Your task to perform on an android device: Go to location settings Image 0: 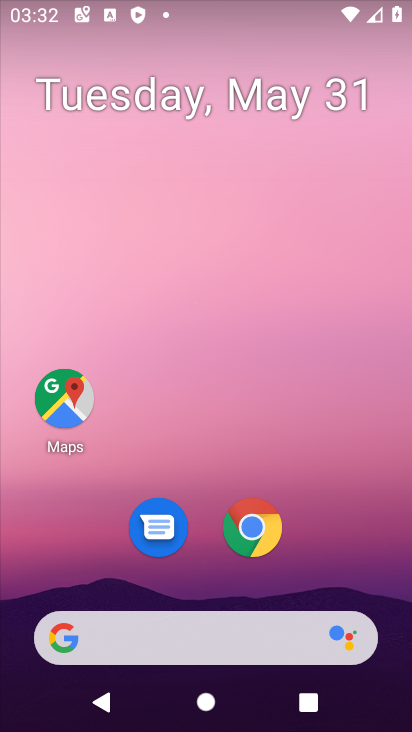
Step 0: drag from (397, 646) to (323, 153)
Your task to perform on an android device: Go to location settings Image 1: 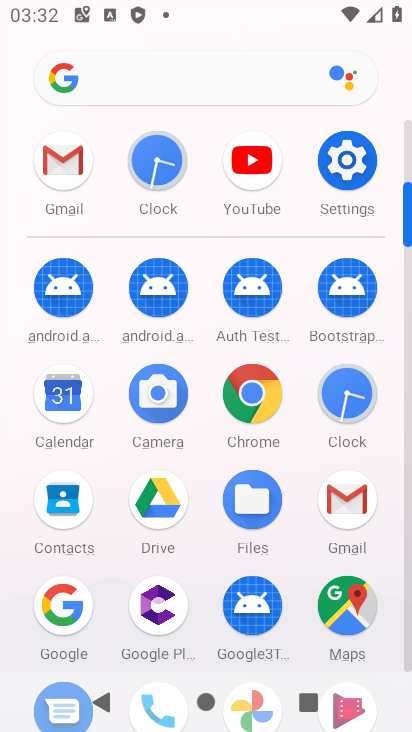
Step 1: click (408, 651)
Your task to perform on an android device: Go to location settings Image 2: 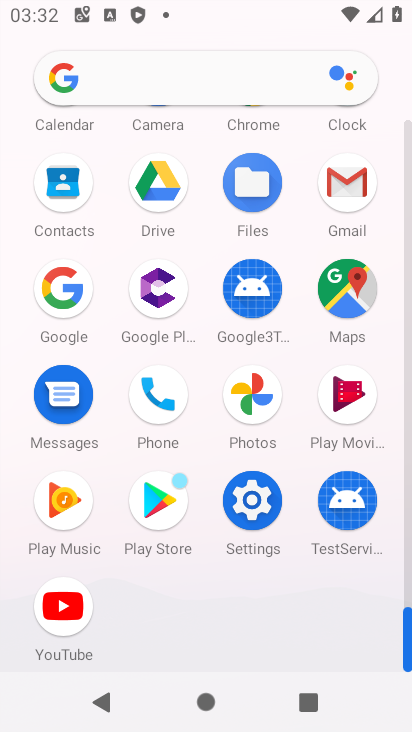
Step 2: click (252, 497)
Your task to perform on an android device: Go to location settings Image 3: 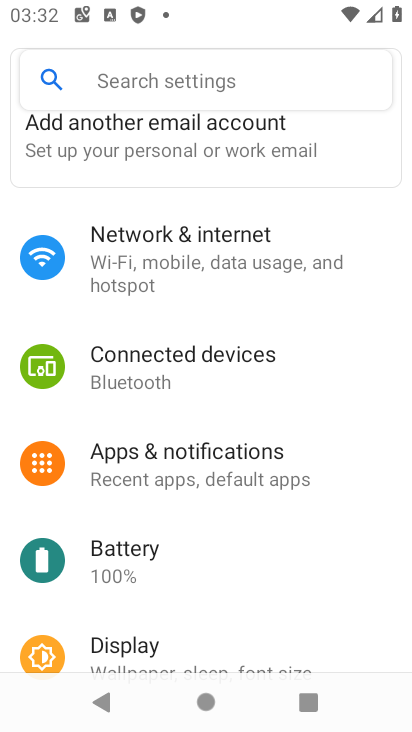
Step 3: drag from (360, 590) to (297, 79)
Your task to perform on an android device: Go to location settings Image 4: 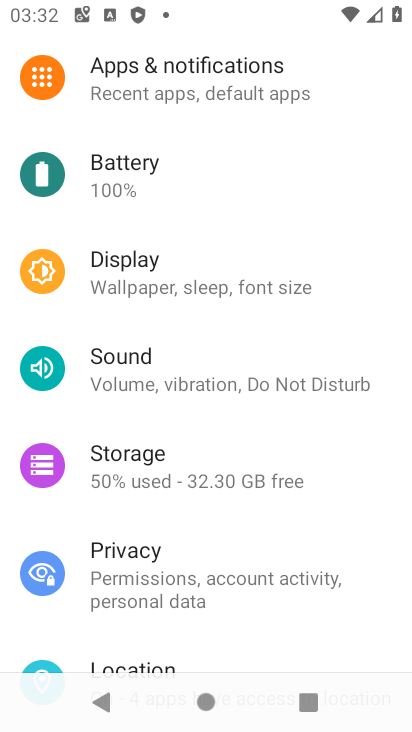
Step 4: drag from (355, 622) to (358, 199)
Your task to perform on an android device: Go to location settings Image 5: 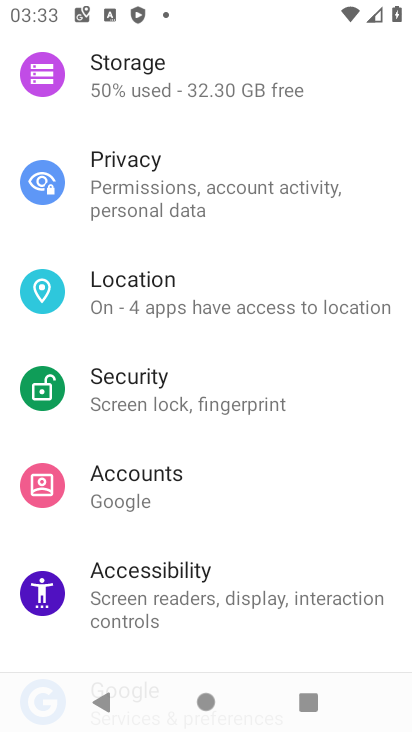
Step 5: click (117, 298)
Your task to perform on an android device: Go to location settings Image 6: 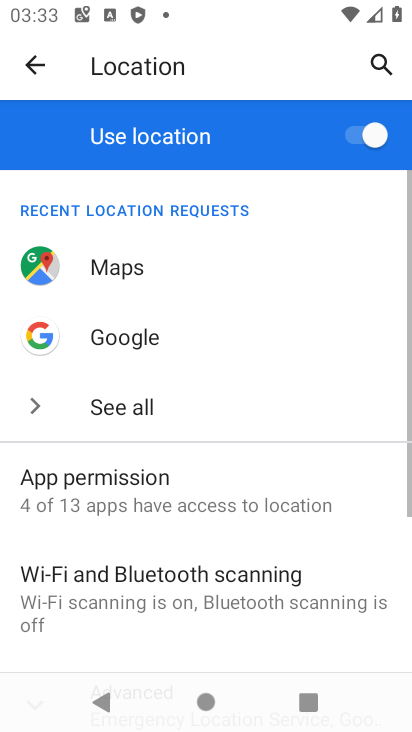
Step 6: drag from (313, 573) to (287, 289)
Your task to perform on an android device: Go to location settings Image 7: 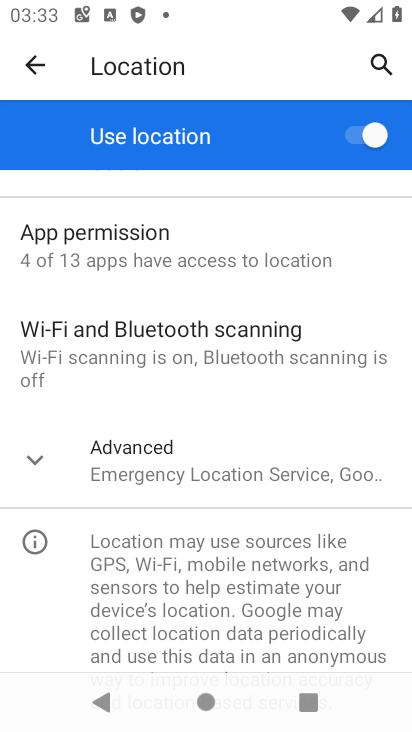
Step 7: click (27, 458)
Your task to perform on an android device: Go to location settings Image 8: 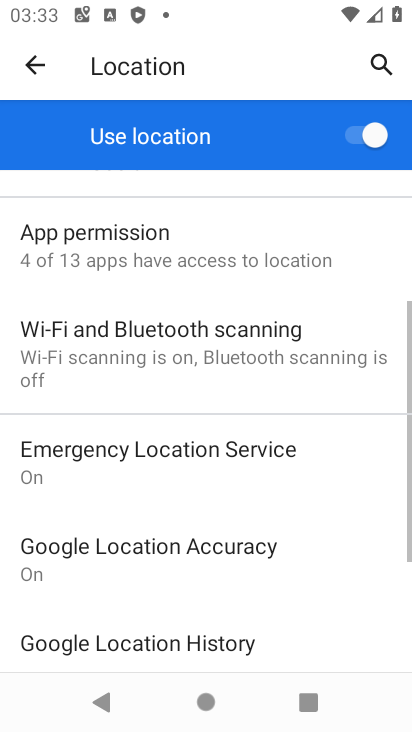
Step 8: task complete